Your task to perform on an android device: turn off translation in the chrome app Image 0: 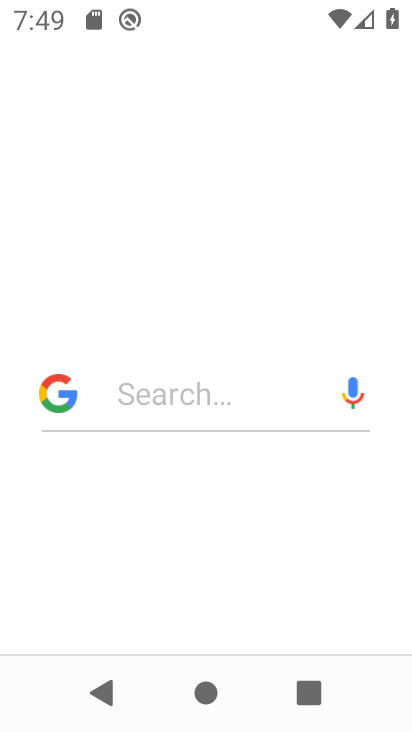
Step 0: drag from (392, 688) to (340, 294)
Your task to perform on an android device: turn off translation in the chrome app Image 1: 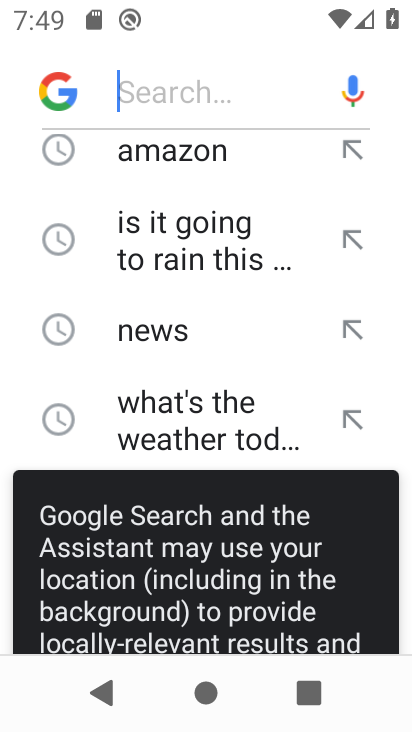
Step 1: press home button
Your task to perform on an android device: turn off translation in the chrome app Image 2: 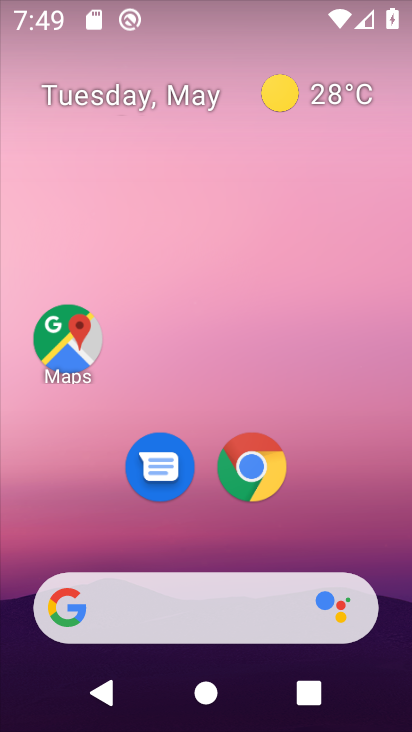
Step 2: drag from (395, 705) to (364, 220)
Your task to perform on an android device: turn off translation in the chrome app Image 3: 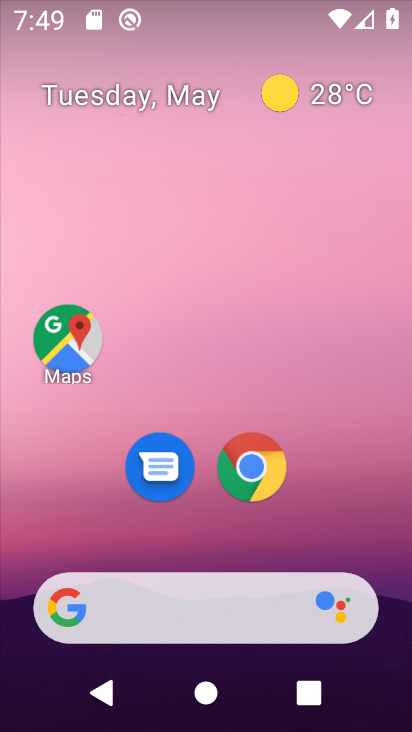
Step 3: drag from (393, 666) to (353, 201)
Your task to perform on an android device: turn off translation in the chrome app Image 4: 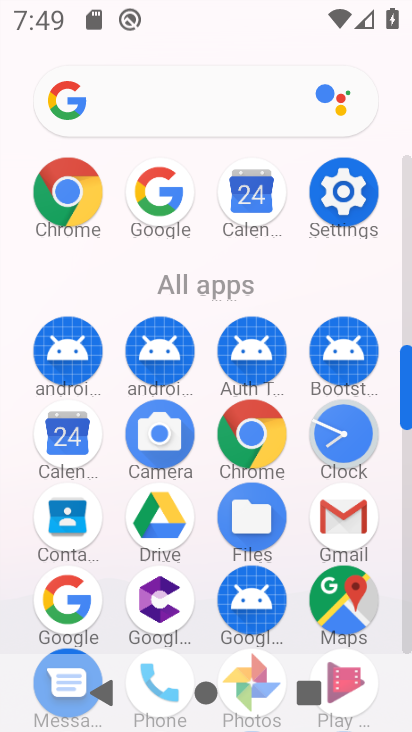
Step 4: click (254, 430)
Your task to perform on an android device: turn off translation in the chrome app Image 5: 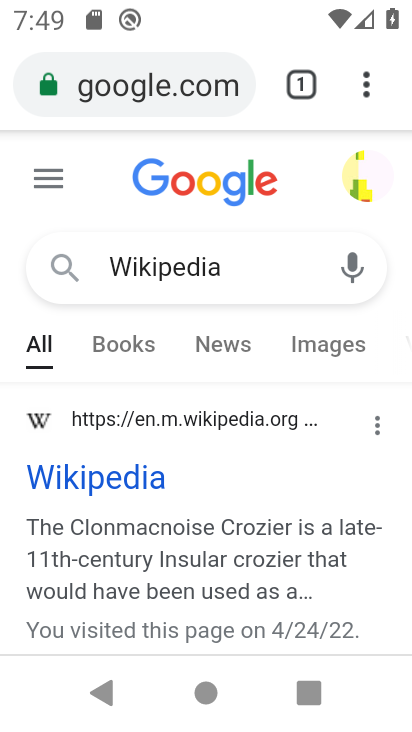
Step 5: click (365, 79)
Your task to perform on an android device: turn off translation in the chrome app Image 6: 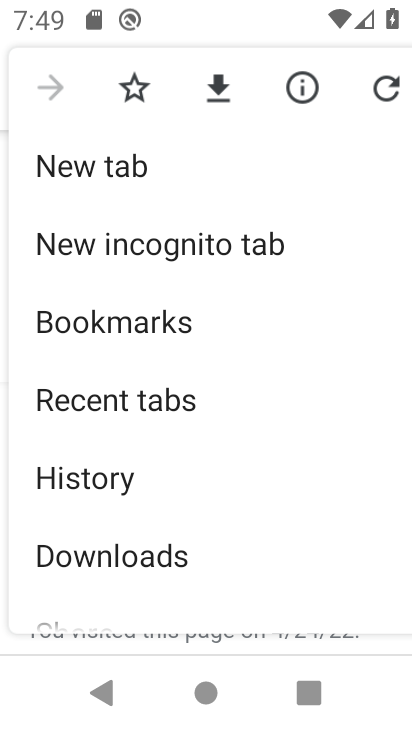
Step 6: drag from (310, 592) to (303, 253)
Your task to perform on an android device: turn off translation in the chrome app Image 7: 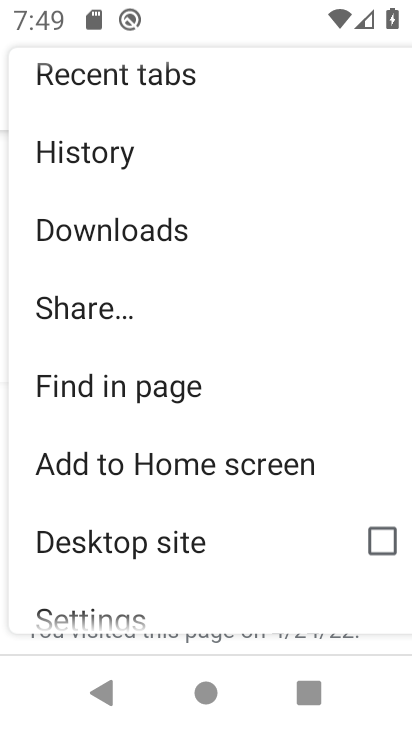
Step 7: drag from (282, 590) to (284, 232)
Your task to perform on an android device: turn off translation in the chrome app Image 8: 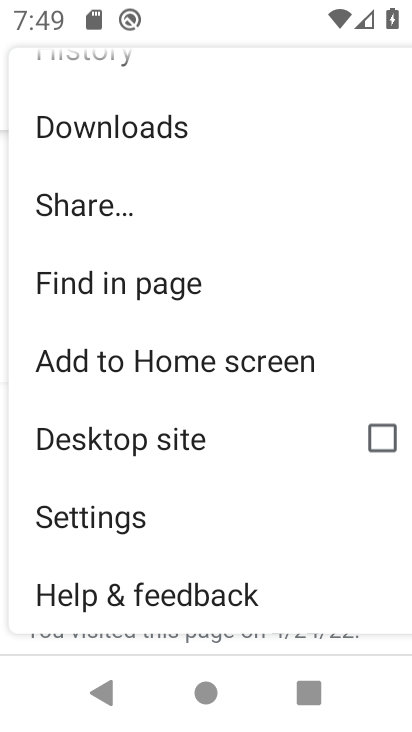
Step 8: click (104, 516)
Your task to perform on an android device: turn off translation in the chrome app Image 9: 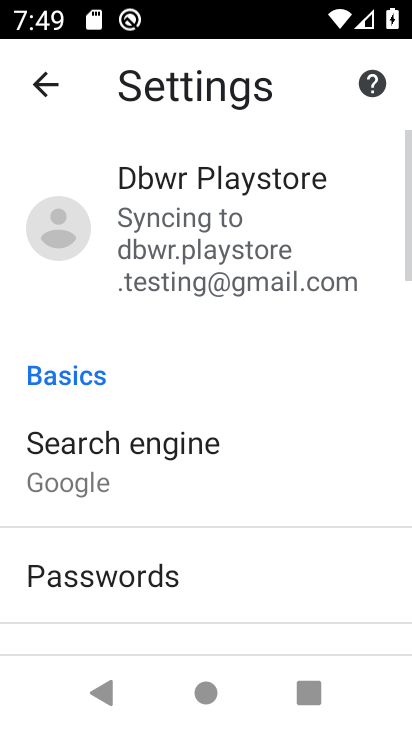
Step 9: drag from (298, 611) to (282, 238)
Your task to perform on an android device: turn off translation in the chrome app Image 10: 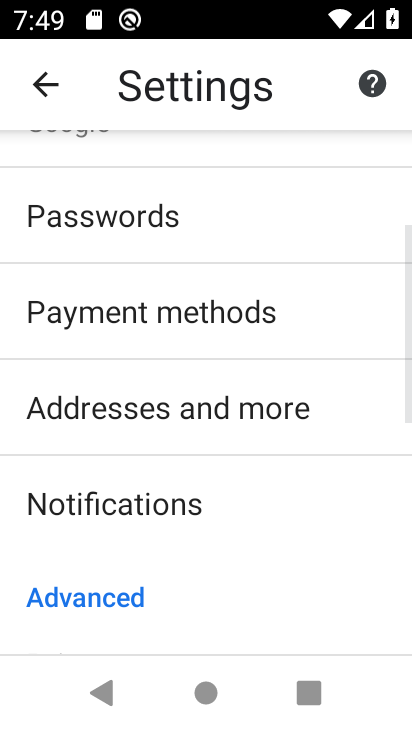
Step 10: drag from (270, 615) to (247, 281)
Your task to perform on an android device: turn off translation in the chrome app Image 11: 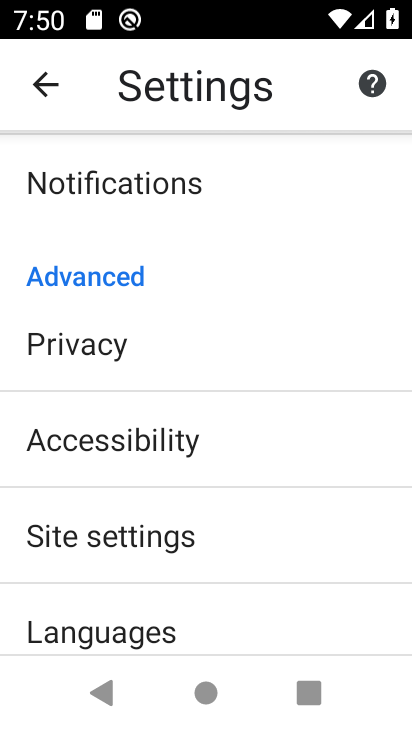
Step 11: click (135, 633)
Your task to perform on an android device: turn off translation in the chrome app Image 12: 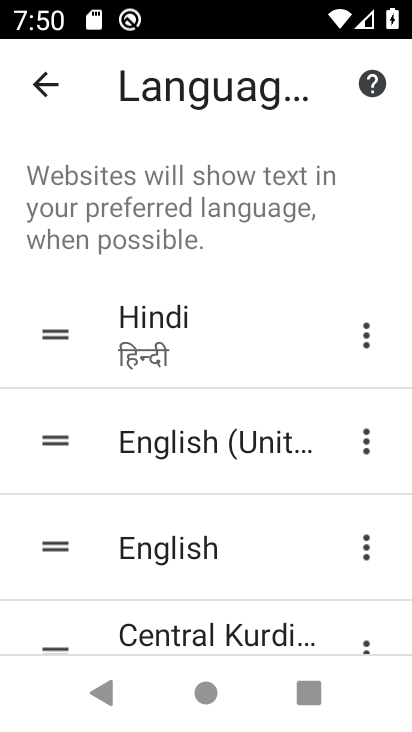
Step 12: drag from (327, 603) to (332, 313)
Your task to perform on an android device: turn off translation in the chrome app Image 13: 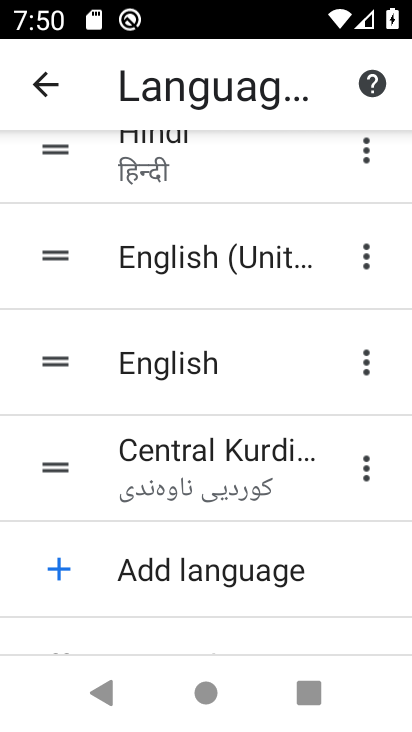
Step 13: drag from (309, 634) to (303, 310)
Your task to perform on an android device: turn off translation in the chrome app Image 14: 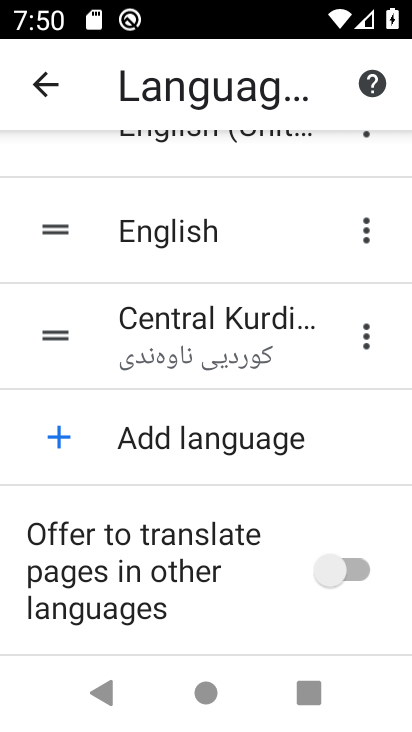
Step 14: click (351, 566)
Your task to perform on an android device: turn off translation in the chrome app Image 15: 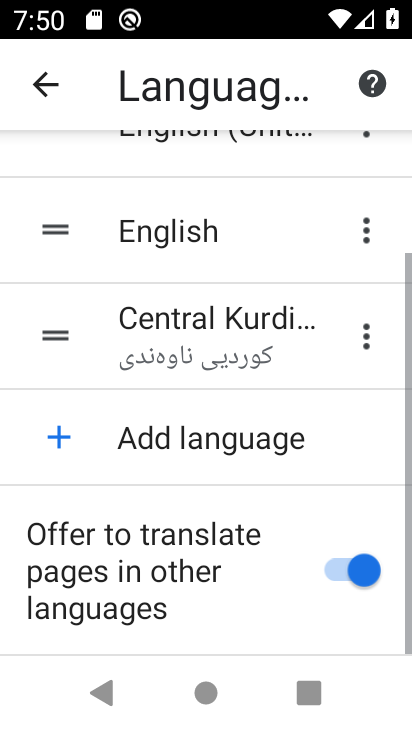
Step 15: click (342, 570)
Your task to perform on an android device: turn off translation in the chrome app Image 16: 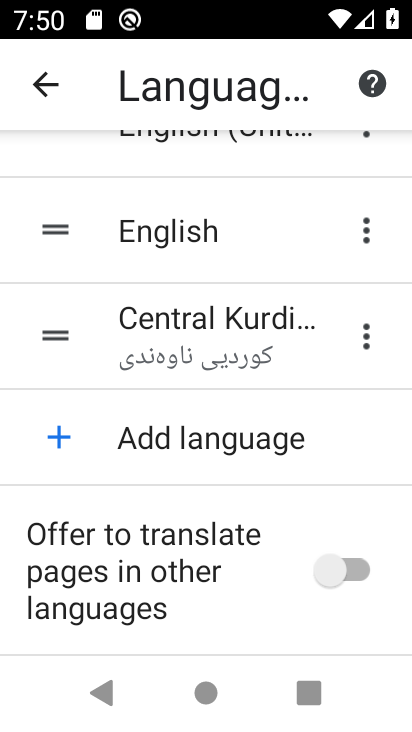
Step 16: task complete